Your task to perform on an android device: open sync settings in chrome Image 0: 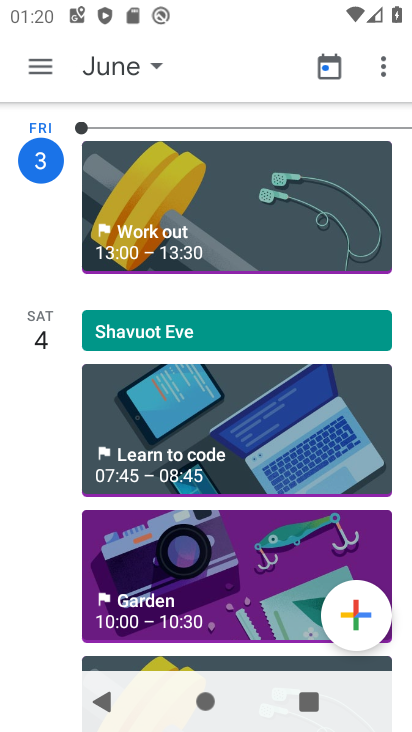
Step 0: press home button
Your task to perform on an android device: open sync settings in chrome Image 1: 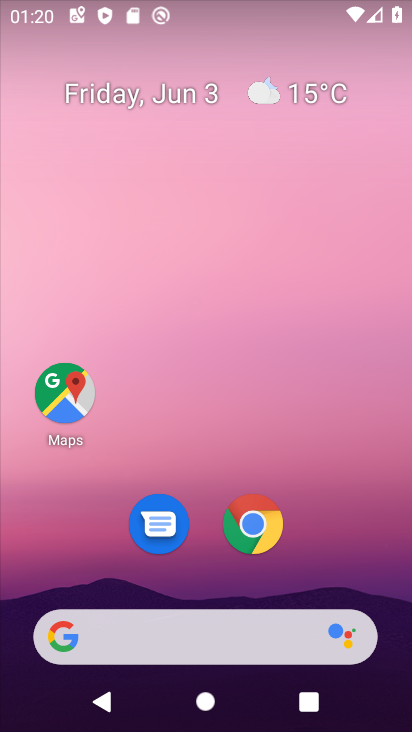
Step 1: click (250, 531)
Your task to perform on an android device: open sync settings in chrome Image 2: 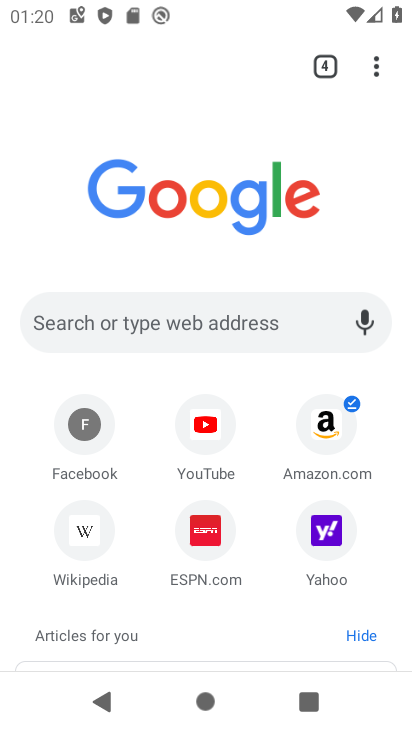
Step 2: click (373, 68)
Your task to perform on an android device: open sync settings in chrome Image 3: 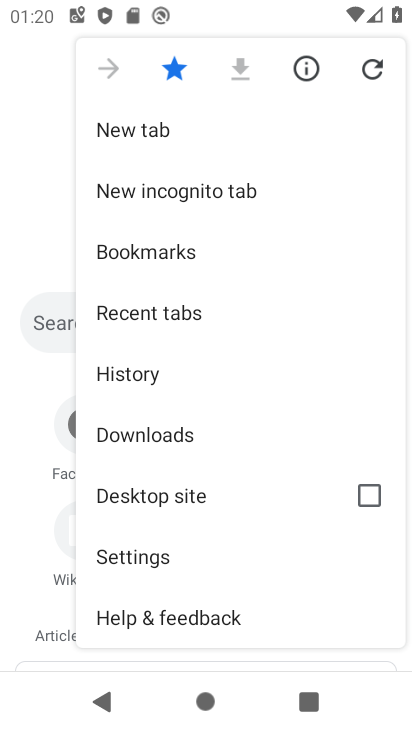
Step 3: click (219, 546)
Your task to perform on an android device: open sync settings in chrome Image 4: 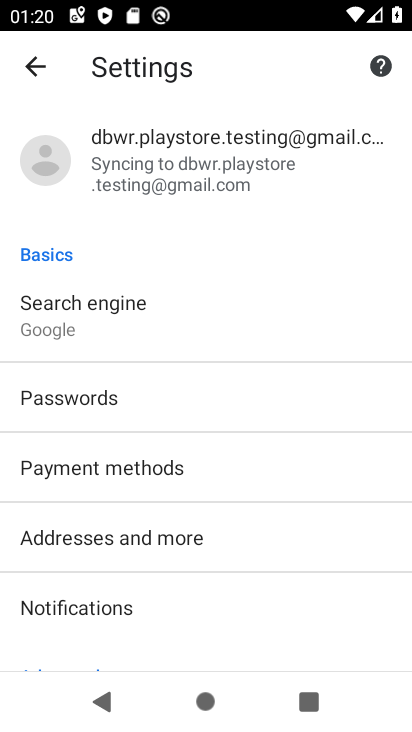
Step 4: click (200, 162)
Your task to perform on an android device: open sync settings in chrome Image 5: 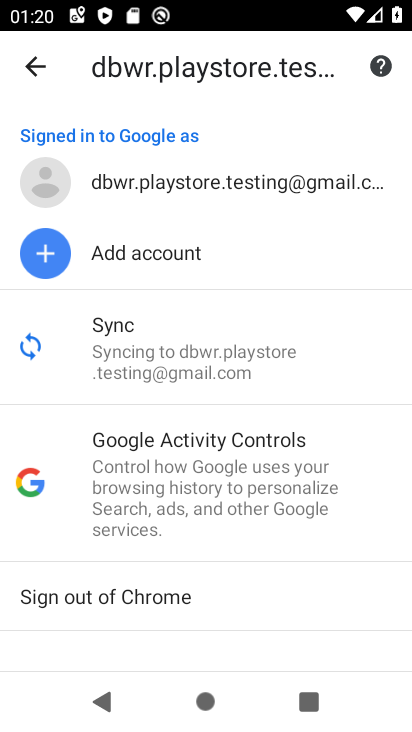
Step 5: click (180, 335)
Your task to perform on an android device: open sync settings in chrome Image 6: 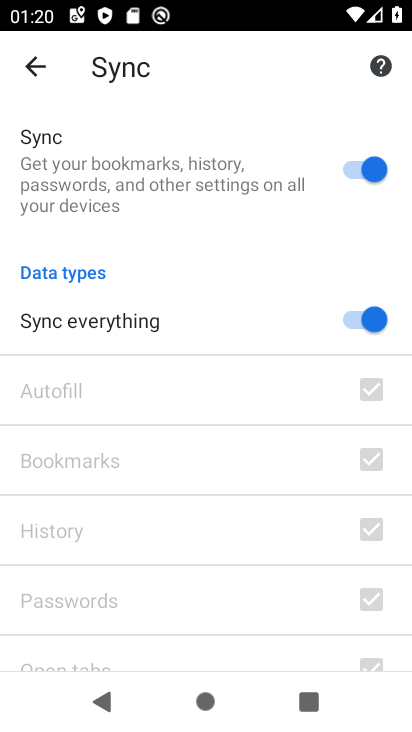
Step 6: task complete